Your task to perform on an android device: Go to display settings Image 0: 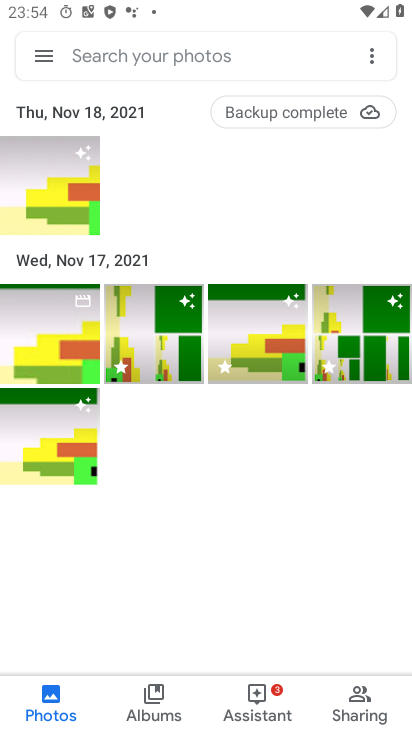
Step 0: press home button
Your task to perform on an android device: Go to display settings Image 1: 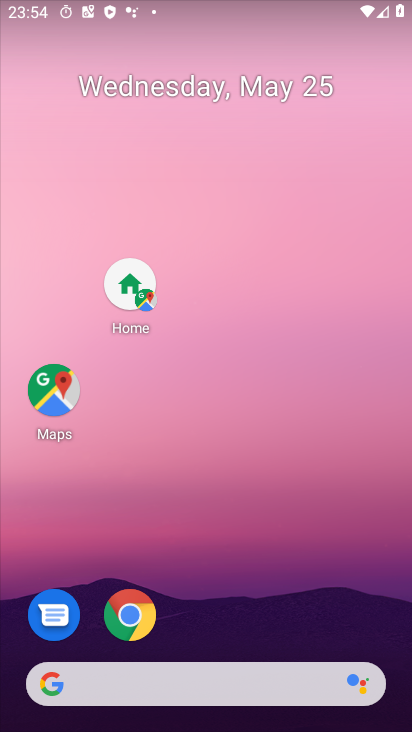
Step 1: drag from (244, 620) to (179, 161)
Your task to perform on an android device: Go to display settings Image 2: 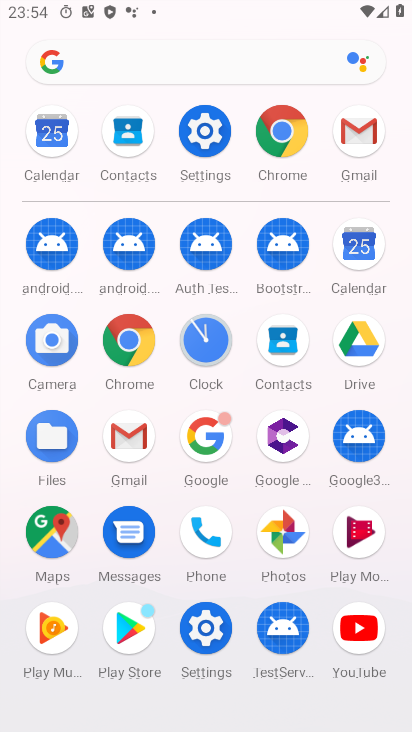
Step 2: click (196, 143)
Your task to perform on an android device: Go to display settings Image 3: 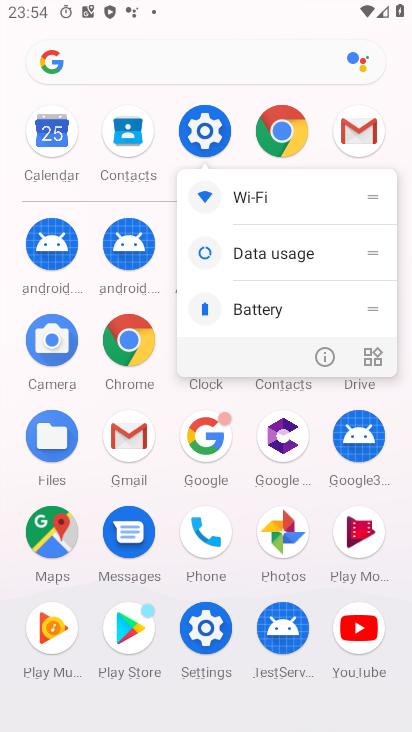
Step 3: click (196, 135)
Your task to perform on an android device: Go to display settings Image 4: 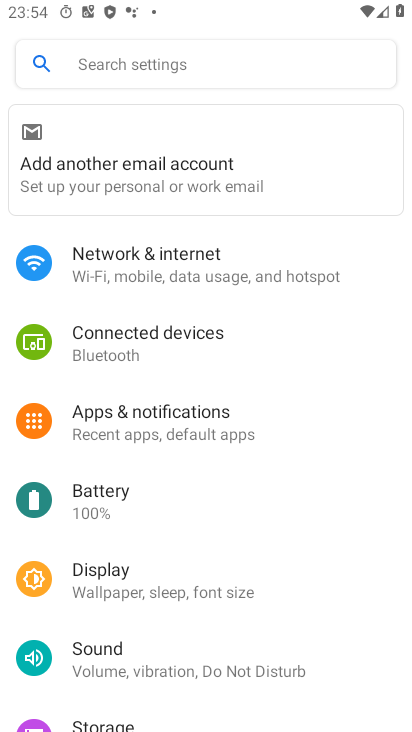
Step 4: click (108, 579)
Your task to perform on an android device: Go to display settings Image 5: 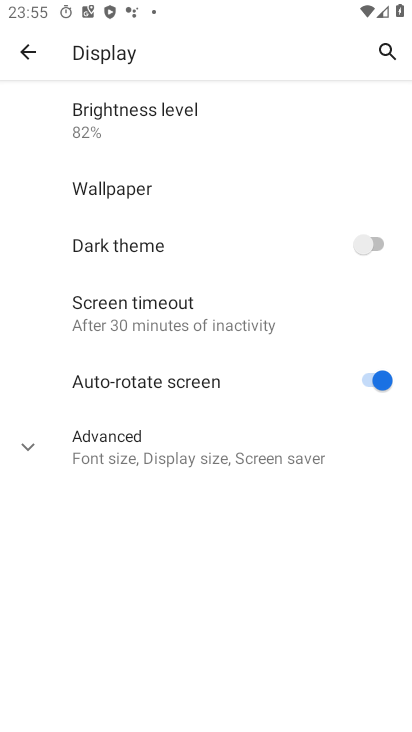
Step 5: task complete